Your task to perform on an android device: open the mobile data screen to see how much data has been used Image 0: 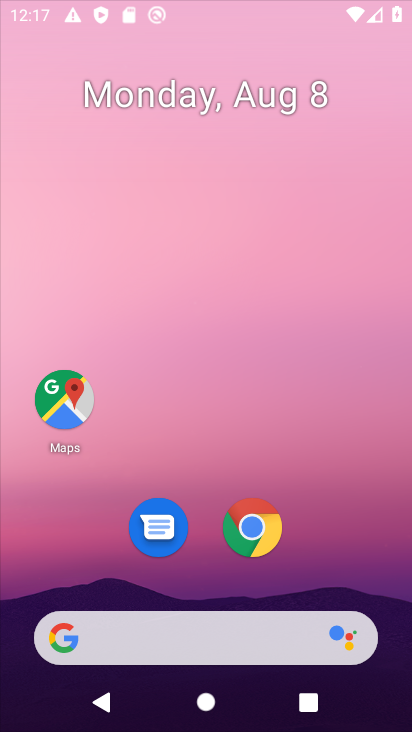
Step 0: drag from (298, 395) to (261, 23)
Your task to perform on an android device: open the mobile data screen to see how much data has been used Image 1: 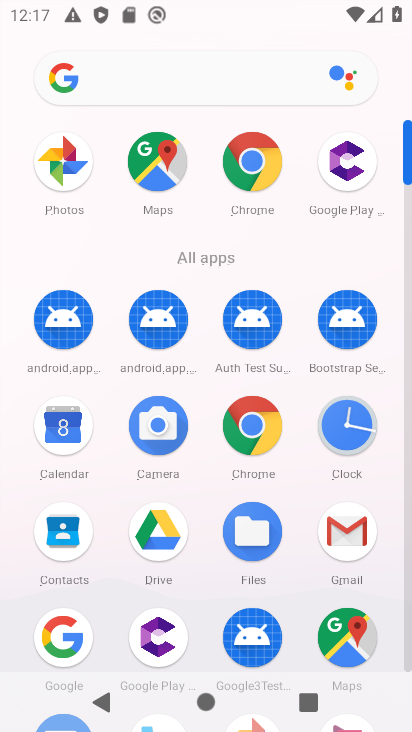
Step 1: click (336, 535)
Your task to perform on an android device: open the mobile data screen to see how much data has been used Image 2: 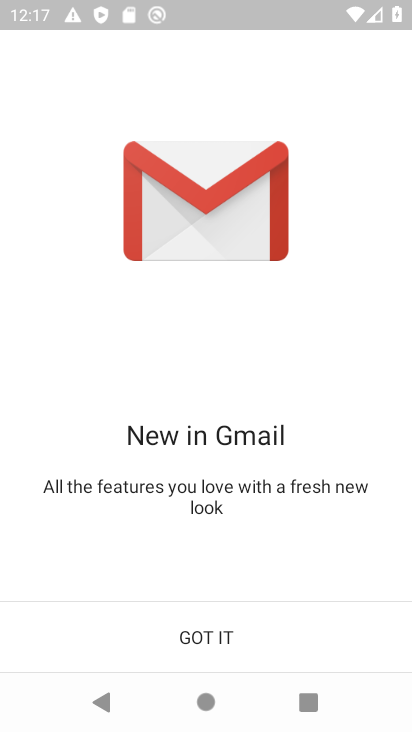
Step 2: click (195, 638)
Your task to perform on an android device: open the mobile data screen to see how much data has been used Image 3: 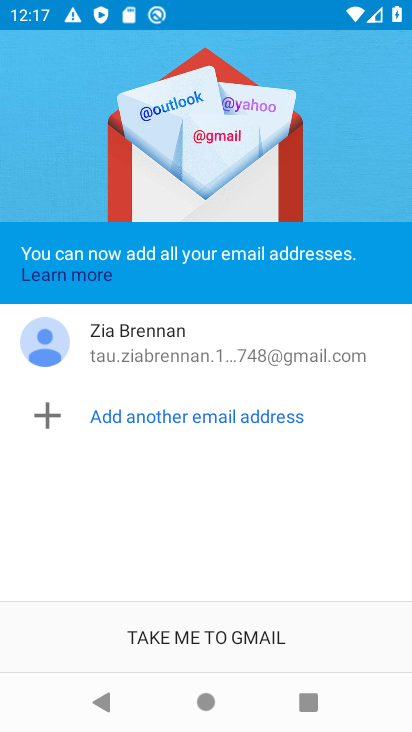
Step 3: click (203, 639)
Your task to perform on an android device: open the mobile data screen to see how much data has been used Image 4: 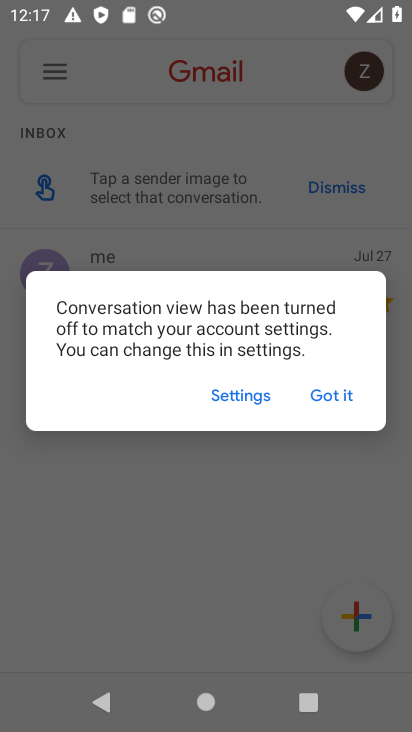
Step 4: task complete